Your task to perform on an android device: Go to settings Image 0: 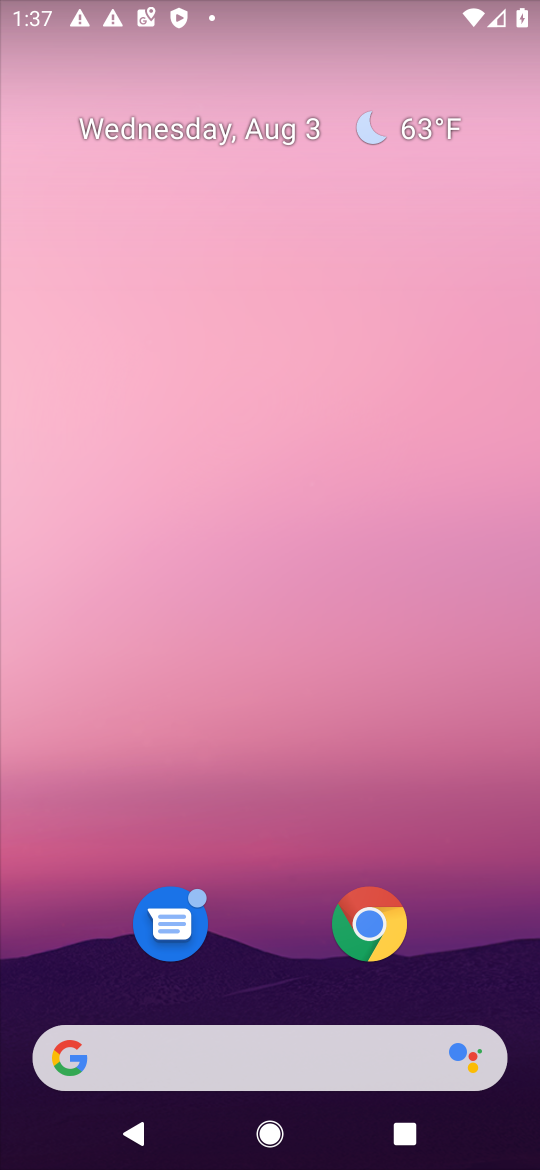
Step 0: drag from (271, 979) to (256, 127)
Your task to perform on an android device: Go to settings Image 1: 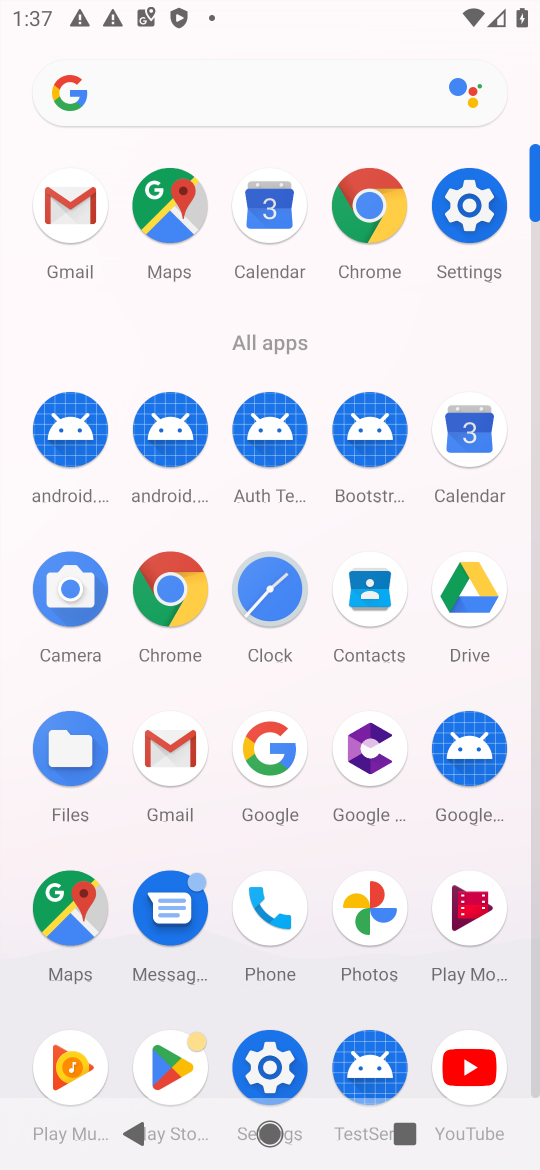
Step 1: click (267, 1058)
Your task to perform on an android device: Go to settings Image 2: 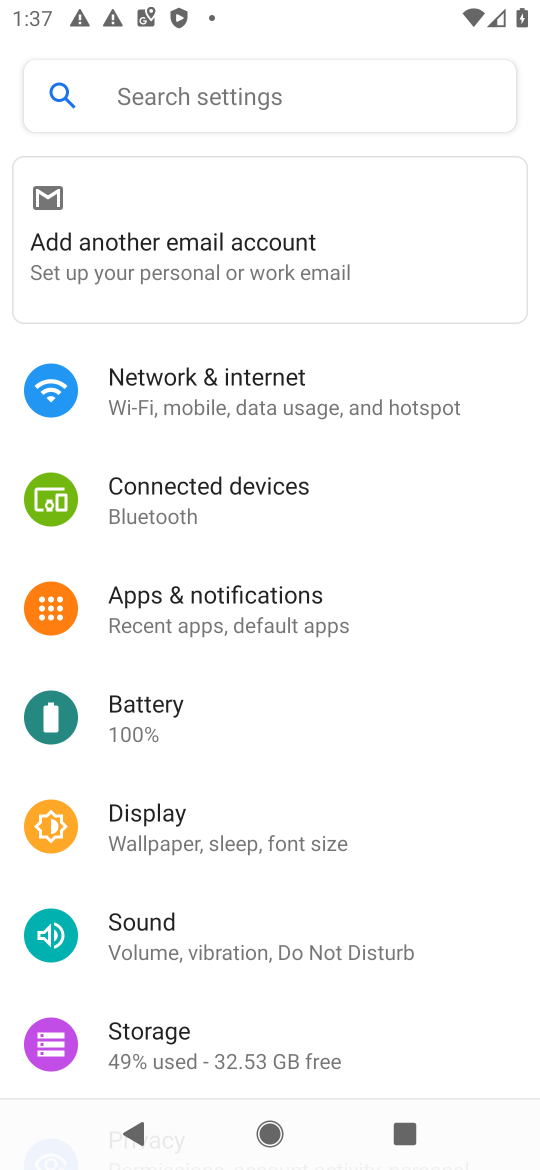
Step 2: task complete